Your task to perform on an android device: change alarm snooze length Image 0: 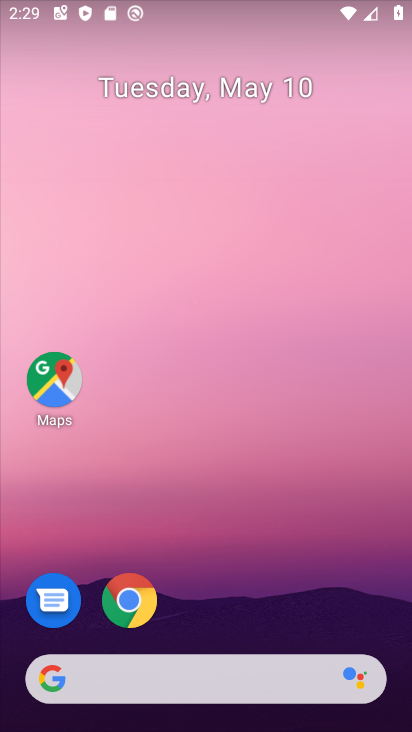
Step 0: drag from (183, 584) to (188, 197)
Your task to perform on an android device: change alarm snooze length Image 1: 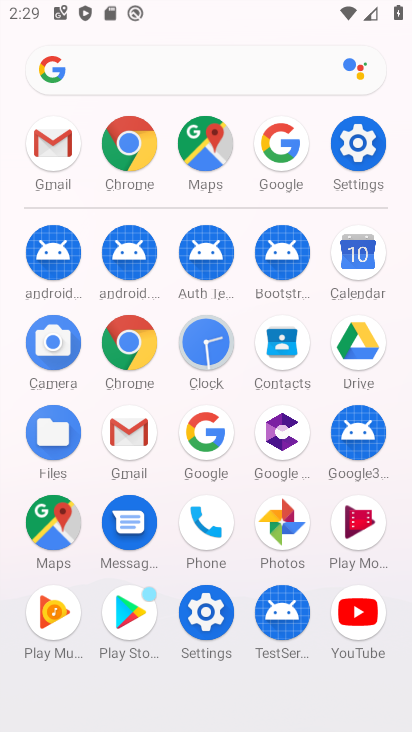
Step 1: click (366, 167)
Your task to perform on an android device: change alarm snooze length Image 2: 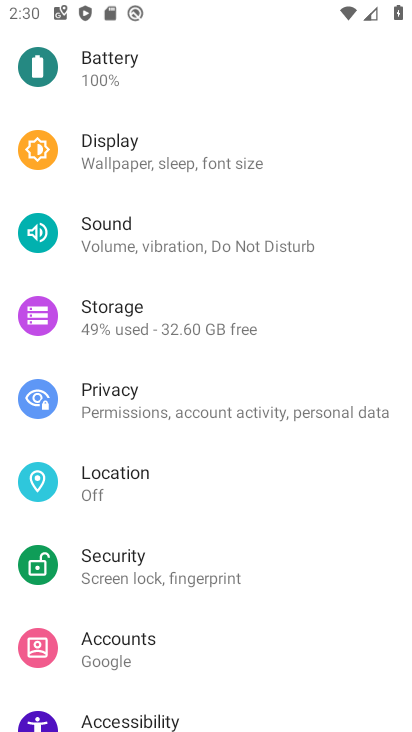
Step 2: press home button
Your task to perform on an android device: change alarm snooze length Image 3: 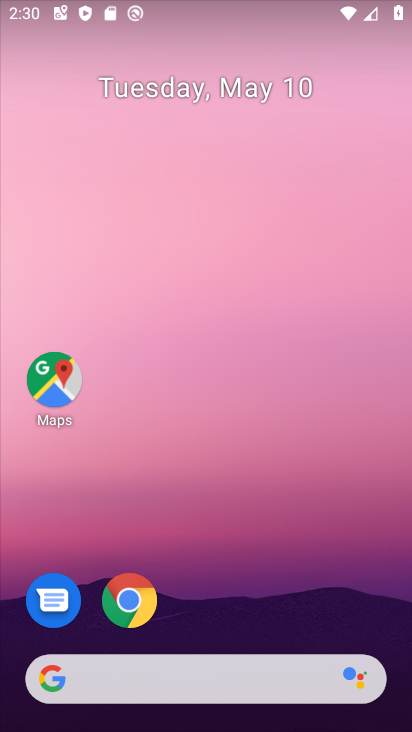
Step 3: drag from (216, 618) to (289, 228)
Your task to perform on an android device: change alarm snooze length Image 4: 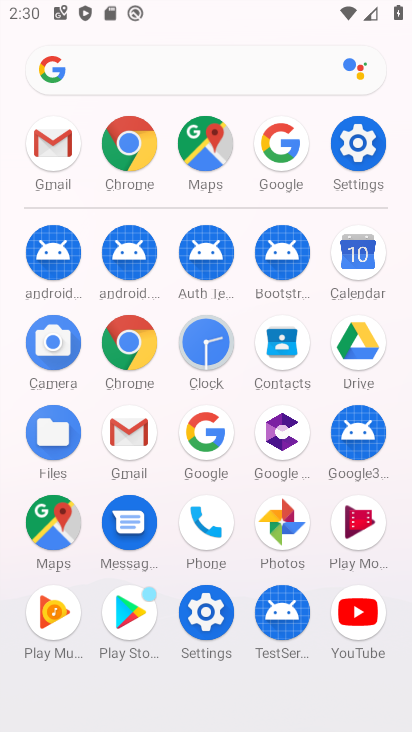
Step 4: click (216, 360)
Your task to perform on an android device: change alarm snooze length Image 5: 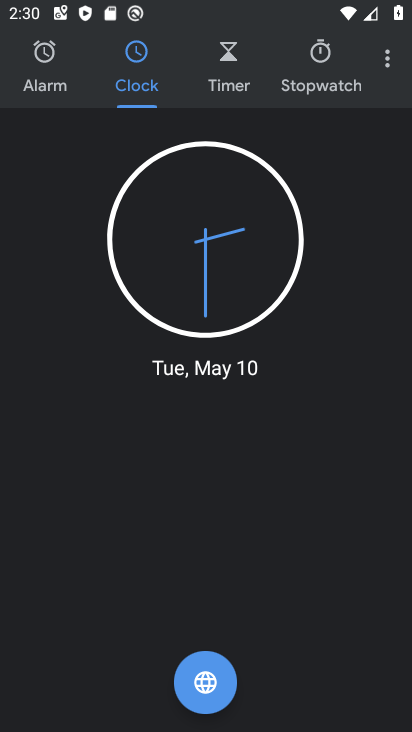
Step 5: click (383, 67)
Your task to perform on an android device: change alarm snooze length Image 6: 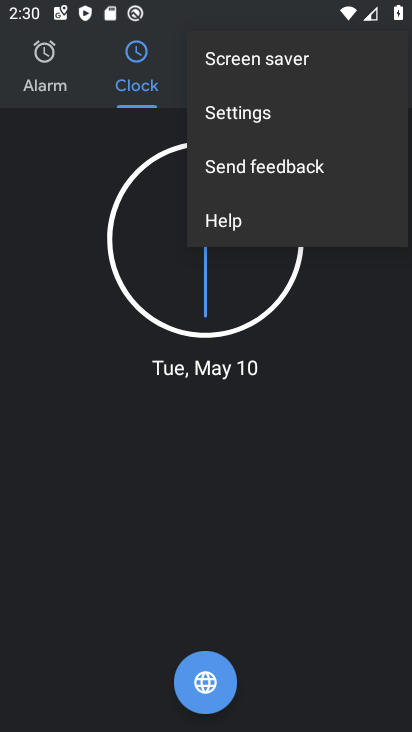
Step 6: click (250, 126)
Your task to perform on an android device: change alarm snooze length Image 7: 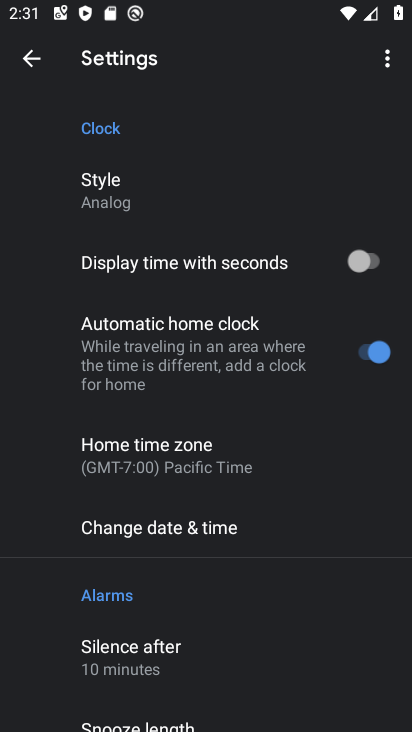
Step 7: drag from (262, 542) to (263, 292)
Your task to perform on an android device: change alarm snooze length Image 8: 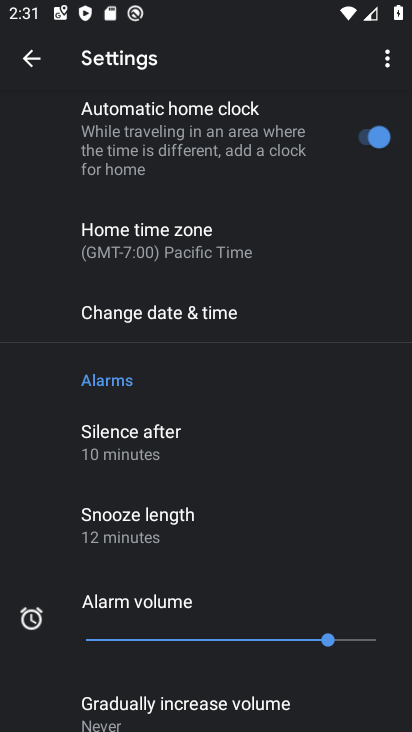
Step 8: drag from (154, 527) to (171, 365)
Your task to perform on an android device: change alarm snooze length Image 9: 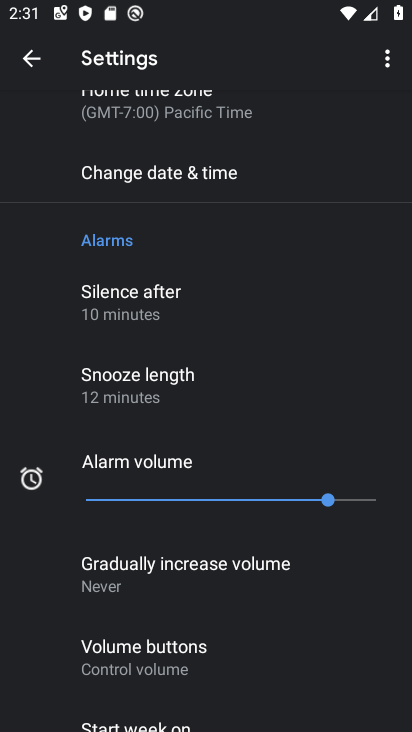
Step 9: click (170, 384)
Your task to perform on an android device: change alarm snooze length Image 10: 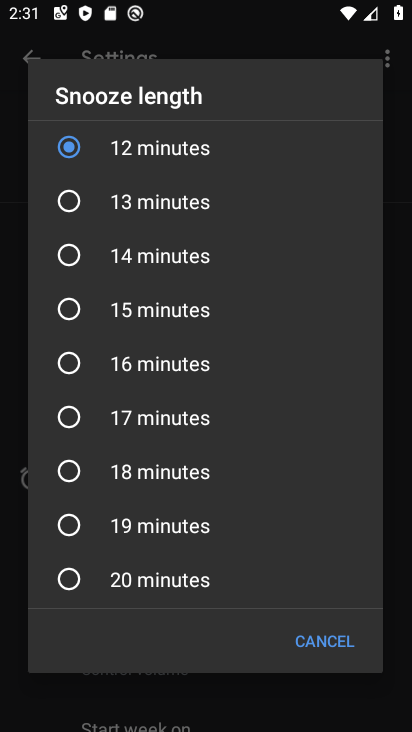
Step 10: click (69, 258)
Your task to perform on an android device: change alarm snooze length Image 11: 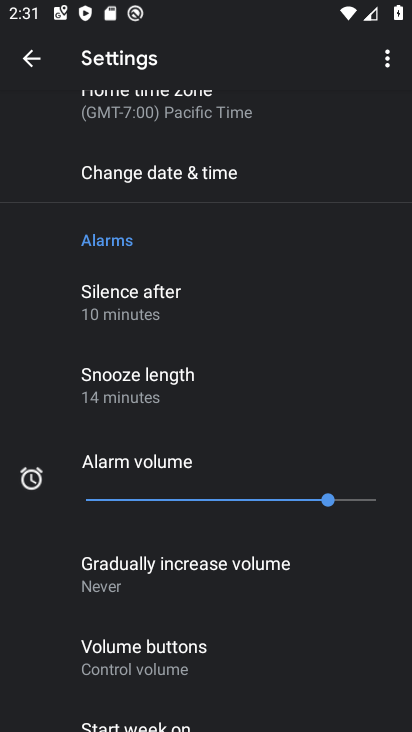
Step 11: task complete